Your task to perform on an android device: Open notification settings Image 0: 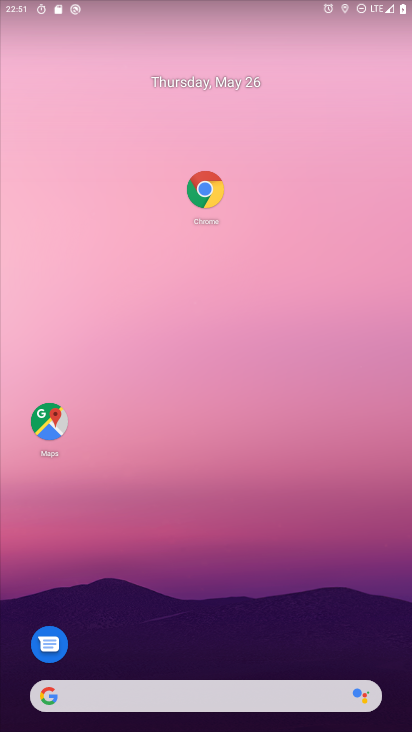
Step 0: click (311, 109)
Your task to perform on an android device: Open notification settings Image 1: 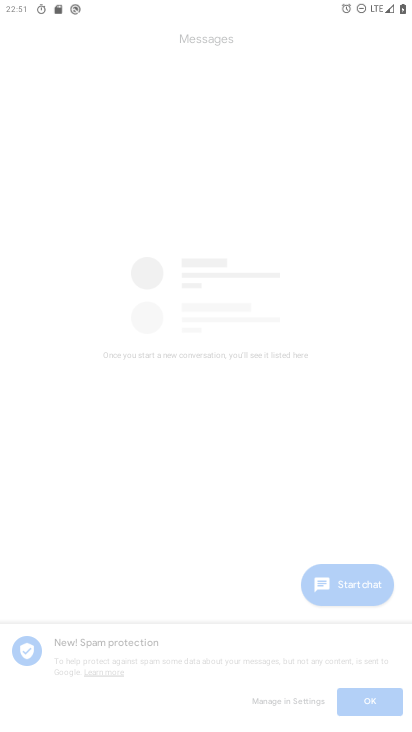
Step 1: drag from (243, 282) to (285, 556)
Your task to perform on an android device: Open notification settings Image 2: 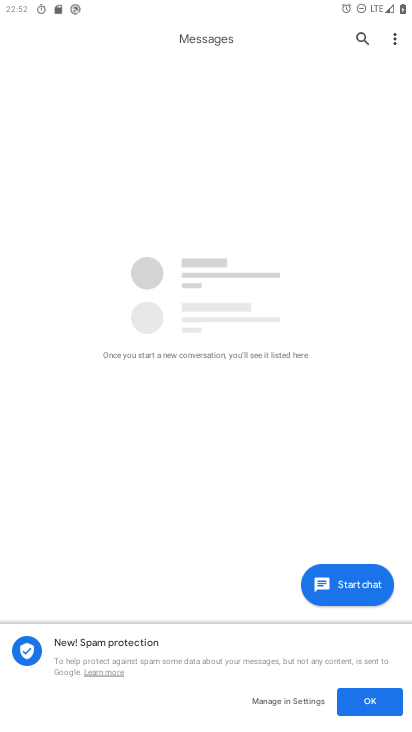
Step 2: press home button
Your task to perform on an android device: Open notification settings Image 3: 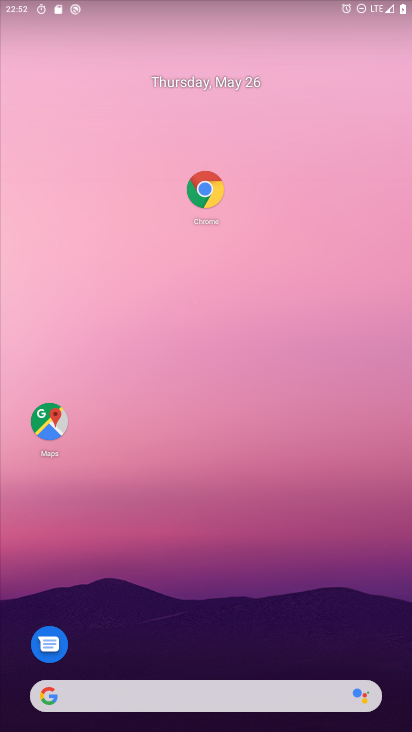
Step 3: drag from (118, 542) to (199, 139)
Your task to perform on an android device: Open notification settings Image 4: 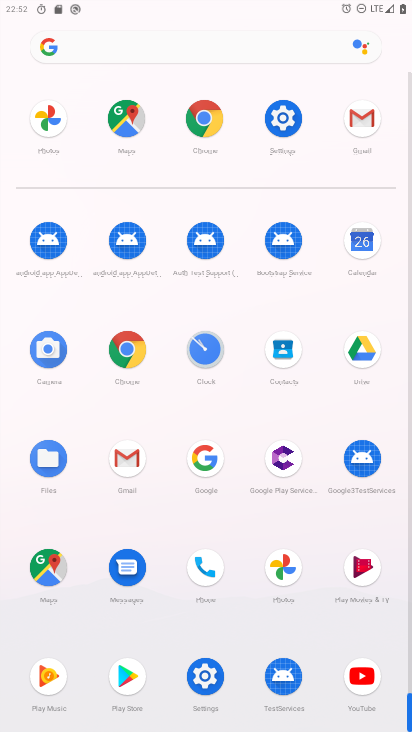
Step 4: click (287, 117)
Your task to perform on an android device: Open notification settings Image 5: 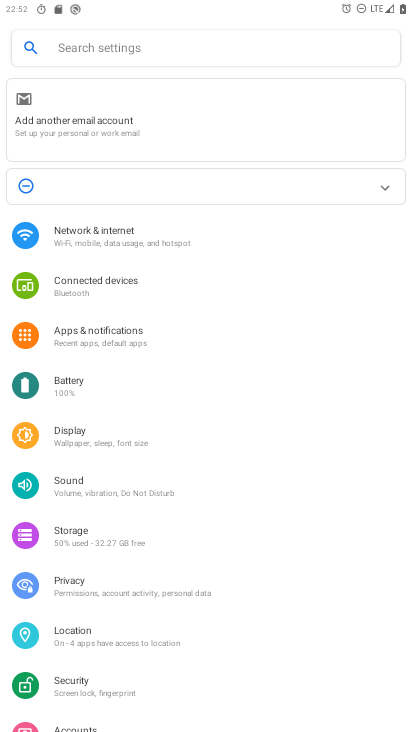
Step 5: click (110, 344)
Your task to perform on an android device: Open notification settings Image 6: 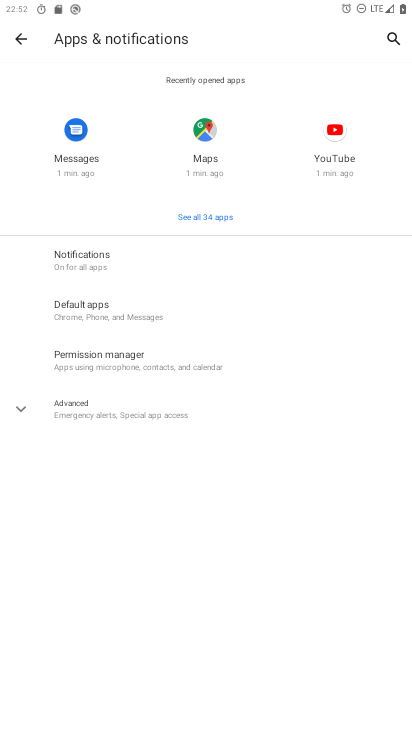
Step 6: click (118, 257)
Your task to perform on an android device: Open notification settings Image 7: 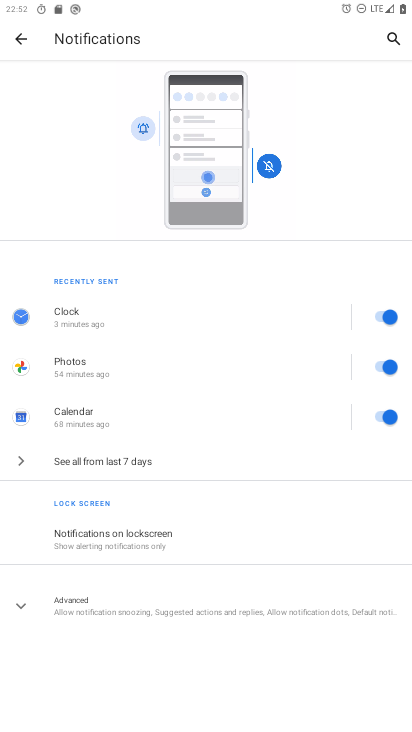
Step 7: task complete